Your task to perform on an android device: set the stopwatch Image 0: 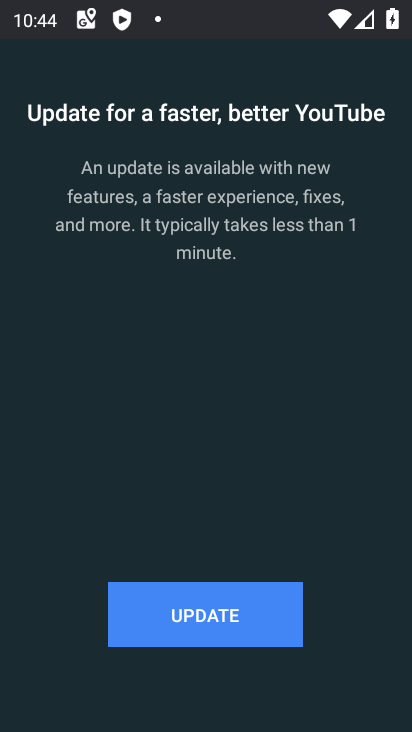
Step 0: press home button
Your task to perform on an android device: set the stopwatch Image 1: 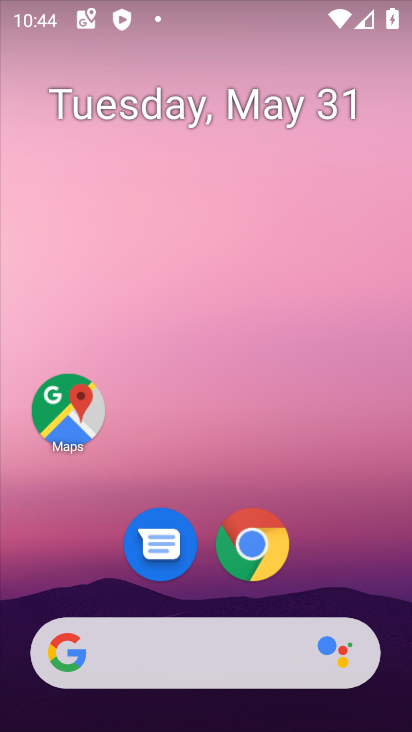
Step 1: drag from (195, 600) to (204, 196)
Your task to perform on an android device: set the stopwatch Image 2: 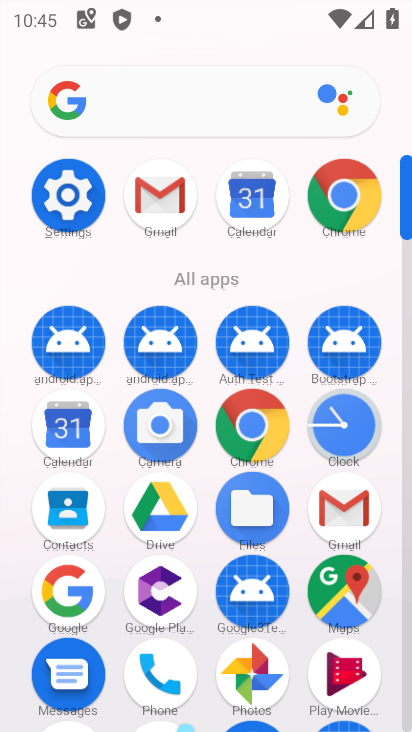
Step 2: click (329, 431)
Your task to perform on an android device: set the stopwatch Image 3: 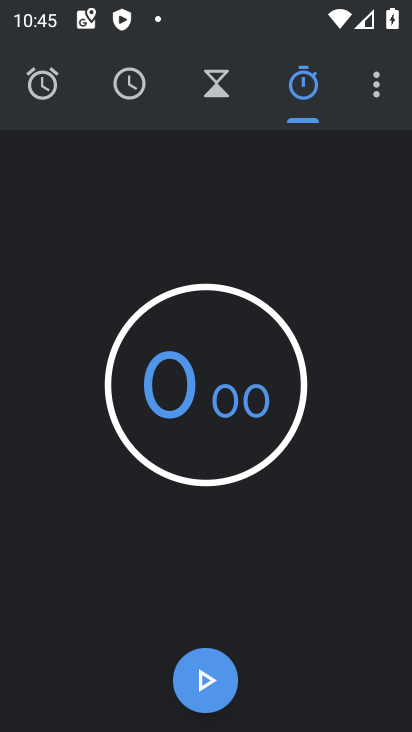
Step 3: click (213, 667)
Your task to perform on an android device: set the stopwatch Image 4: 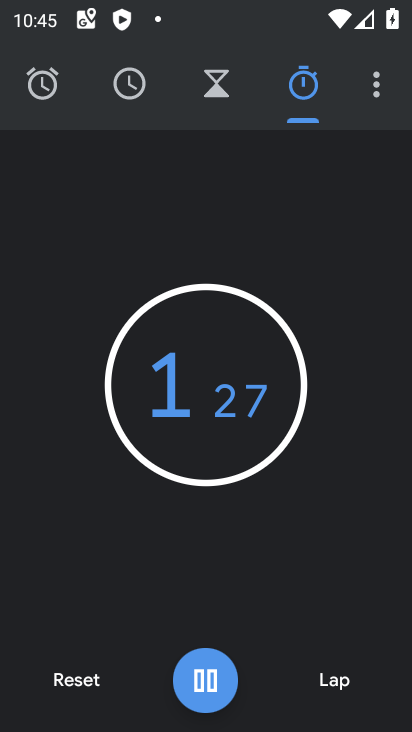
Step 4: task complete